Your task to perform on an android device: see sites visited before in the chrome app Image 0: 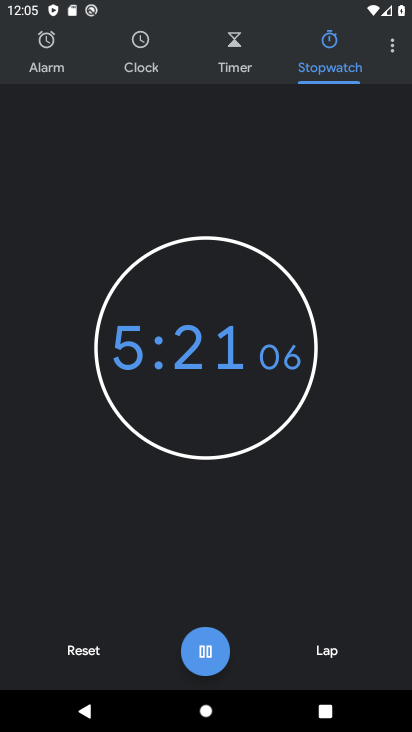
Step 0: press home button
Your task to perform on an android device: see sites visited before in the chrome app Image 1: 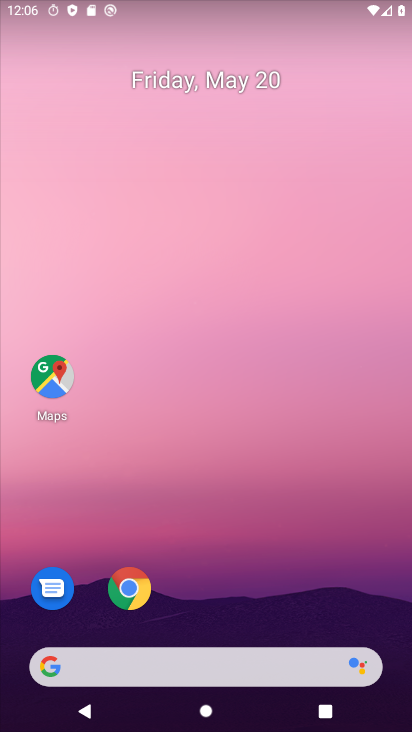
Step 1: click (145, 599)
Your task to perform on an android device: see sites visited before in the chrome app Image 2: 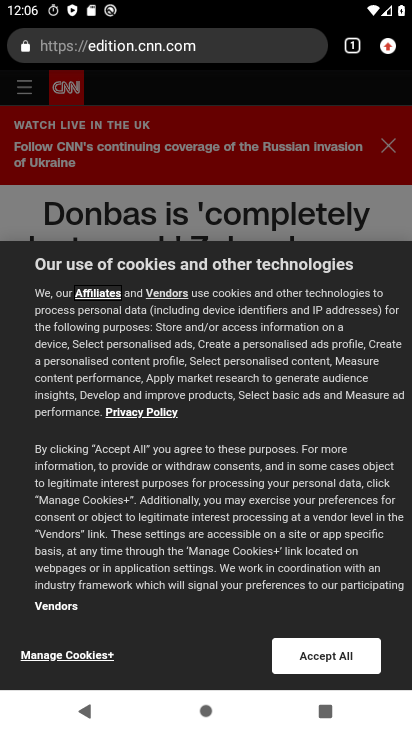
Step 2: click (394, 53)
Your task to perform on an android device: see sites visited before in the chrome app Image 3: 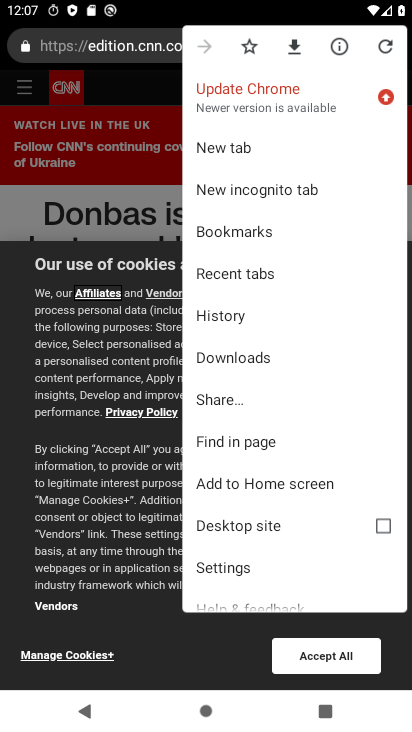
Step 3: click (276, 271)
Your task to perform on an android device: see sites visited before in the chrome app Image 4: 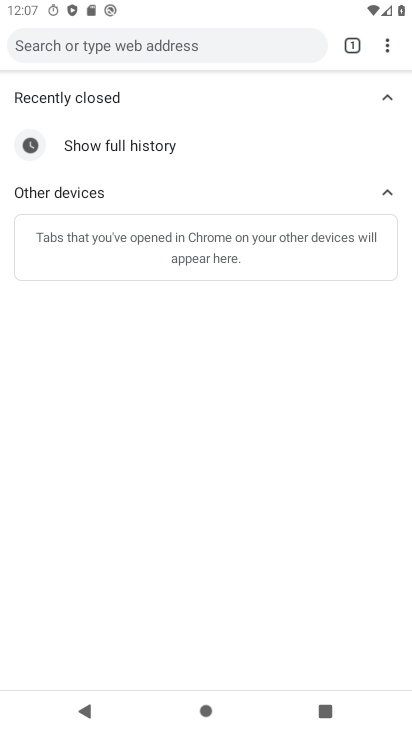
Step 4: task complete